Your task to perform on an android device: Open calendar and show me the third week of next month Image 0: 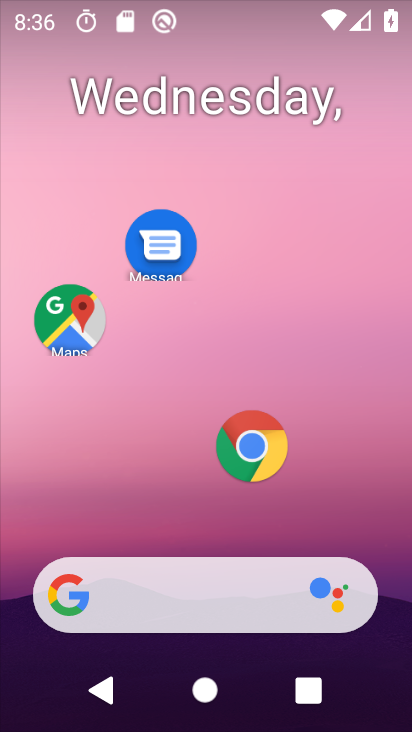
Step 0: press home button
Your task to perform on an android device: Open calendar and show me the third week of next month Image 1: 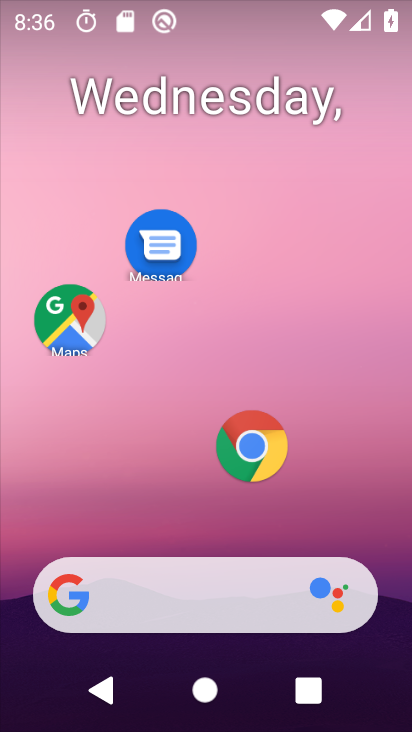
Step 1: drag from (193, 540) to (188, 128)
Your task to perform on an android device: Open calendar and show me the third week of next month Image 2: 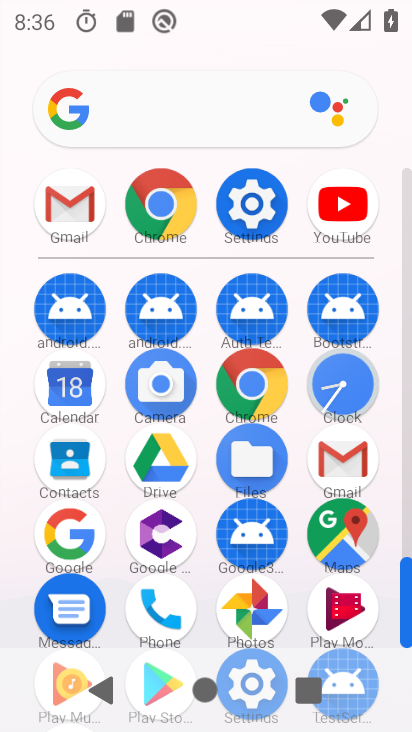
Step 2: click (66, 381)
Your task to perform on an android device: Open calendar and show me the third week of next month Image 3: 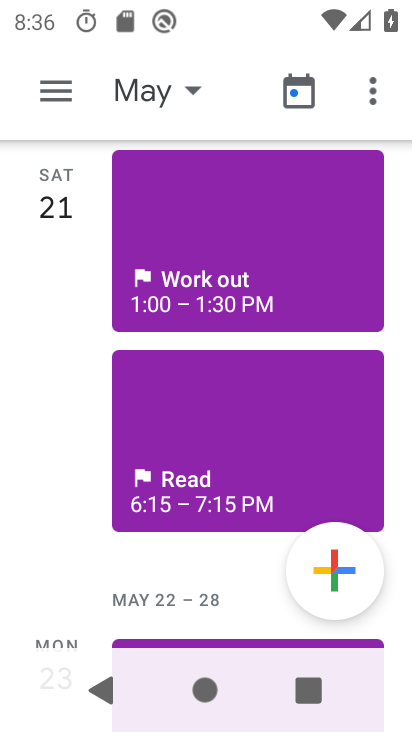
Step 3: click (189, 92)
Your task to perform on an android device: Open calendar and show me the third week of next month Image 4: 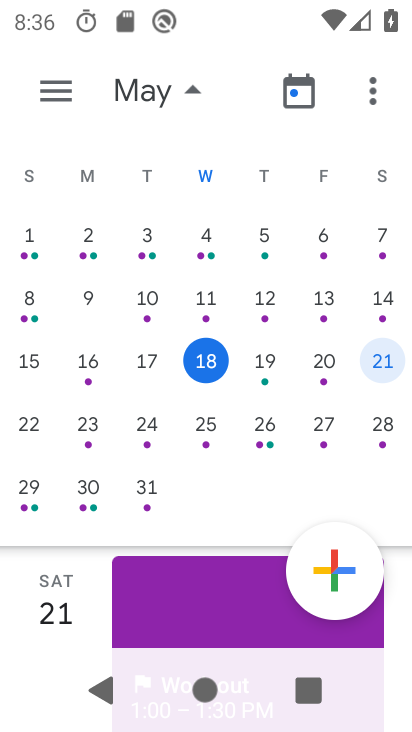
Step 4: drag from (275, 339) to (3, 356)
Your task to perform on an android device: Open calendar and show me the third week of next month Image 5: 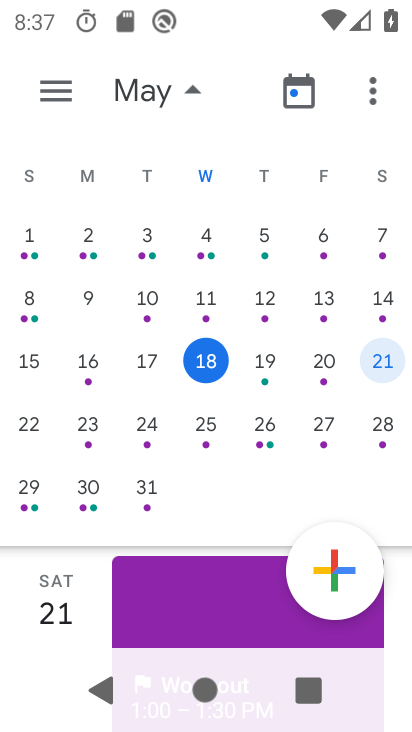
Step 5: drag from (367, 343) to (86, 326)
Your task to perform on an android device: Open calendar and show me the third week of next month Image 6: 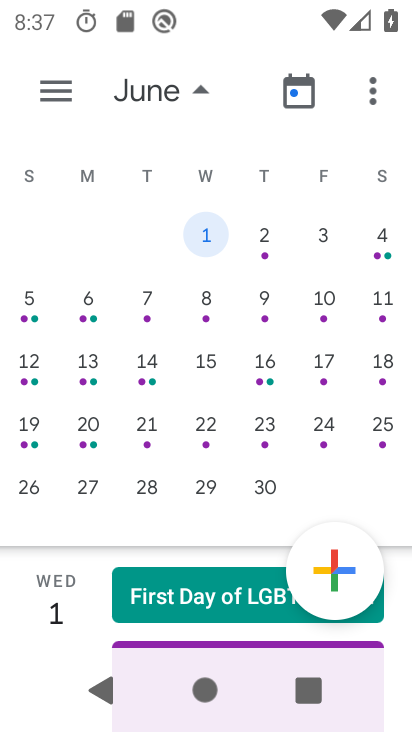
Step 6: click (27, 363)
Your task to perform on an android device: Open calendar and show me the third week of next month Image 7: 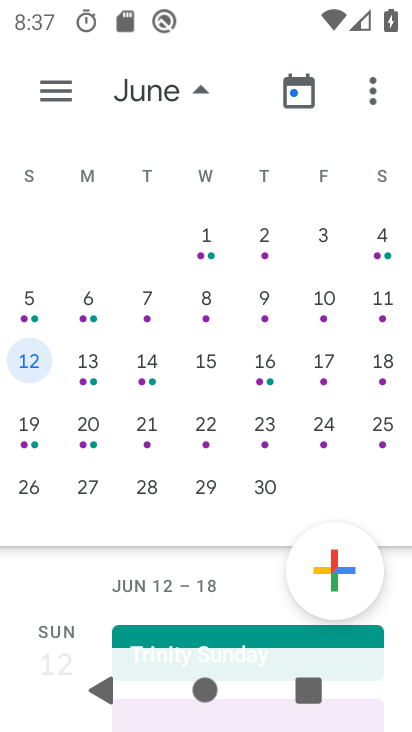
Step 7: click (198, 86)
Your task to perform on an android device: Open calendar and show me the third week of next month Image 8: 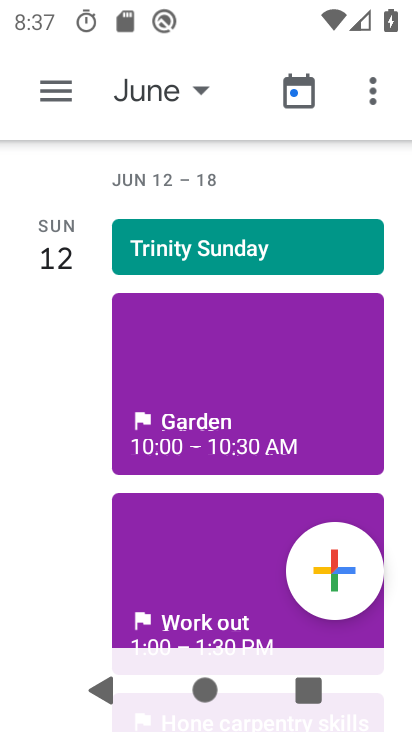
Step 8: task complete